Your task to perform on an android device: check google app version Image 0: 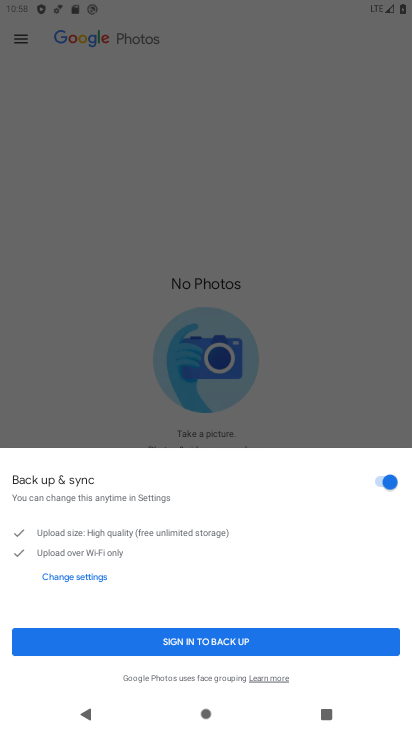
Step 0: drag from (244, 607) to (320, 119)
Your task to perform on an android device: check google app version Image 1: 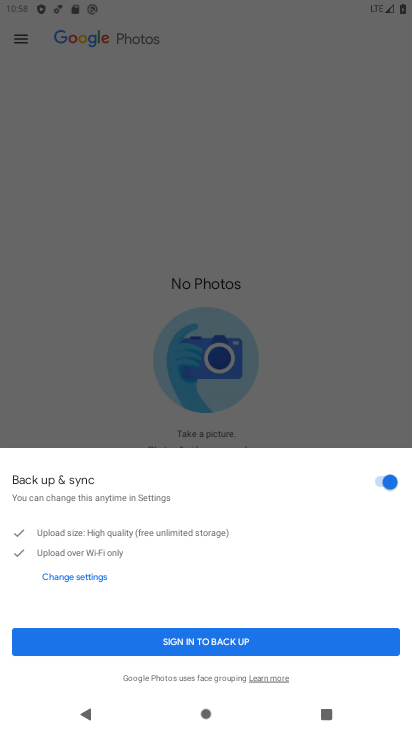
Step 1: drag from (187, 531) to (285, 266)
Your task to perform on an android device: check google app version Image 2: 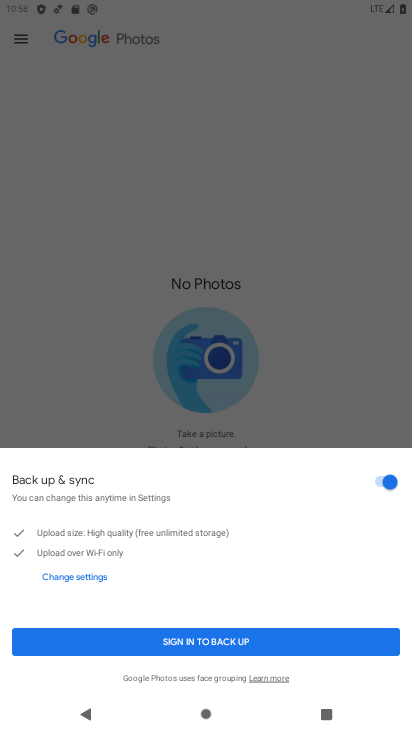
Step 2: press home button
Your task to perform on an android device: check google app version Image 3: 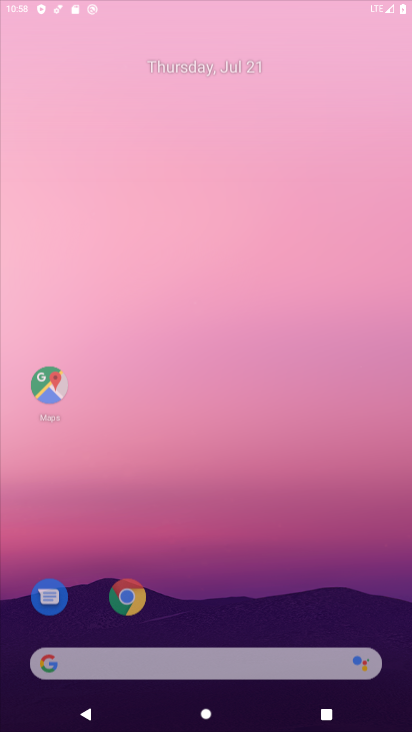
Step 3: drag from (247, 450) to (297, 223)
Your task to perform on an android device: check google app version Image 4: 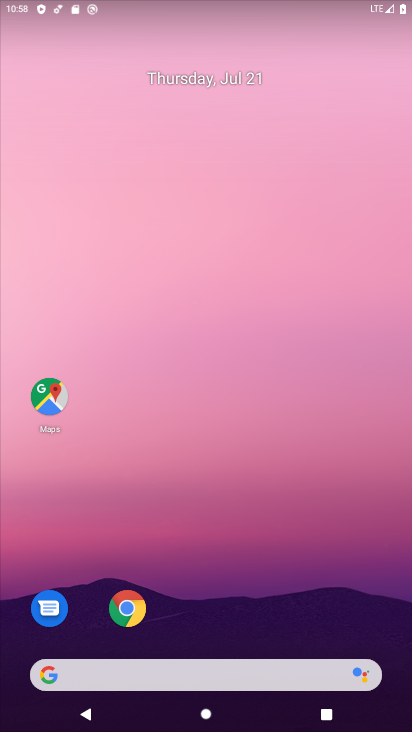
Step 4: drag from (240, 575) to (317, 5)
Your task to perform on an android device: check google app version Image 5: 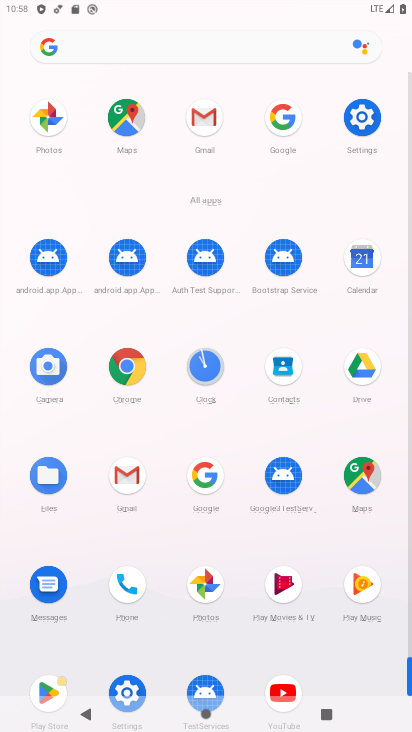
Step 5: click (209, 466)
Your task to perform on an android device: check google app version Image 6: 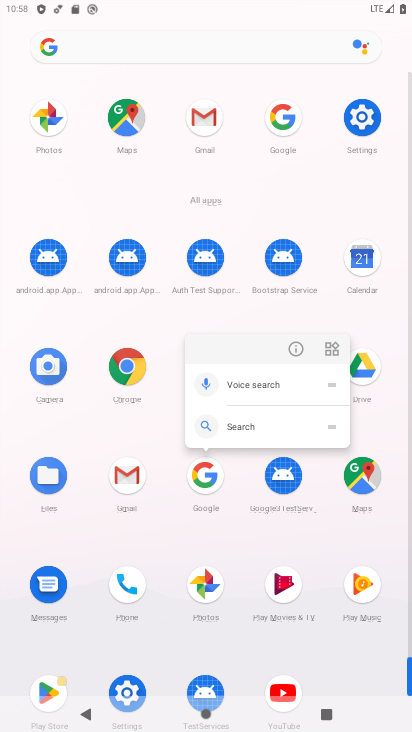
Step 6: click (292, 350)
Your task to perform on an android device: check google app version Image 7: 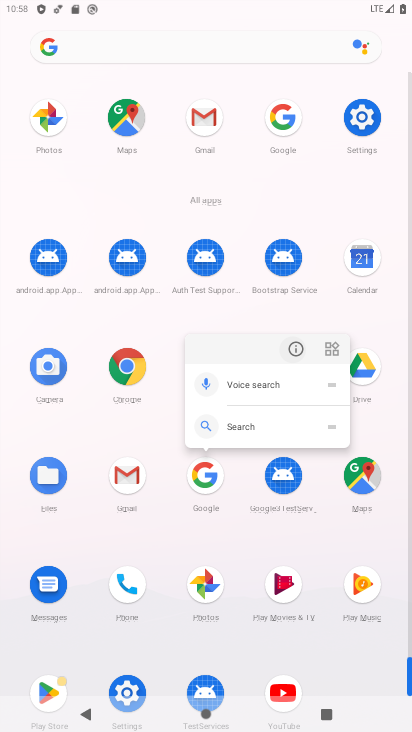
Step 7: click (292, 349)
Your task to perform on an android device: check google app version Image 8: 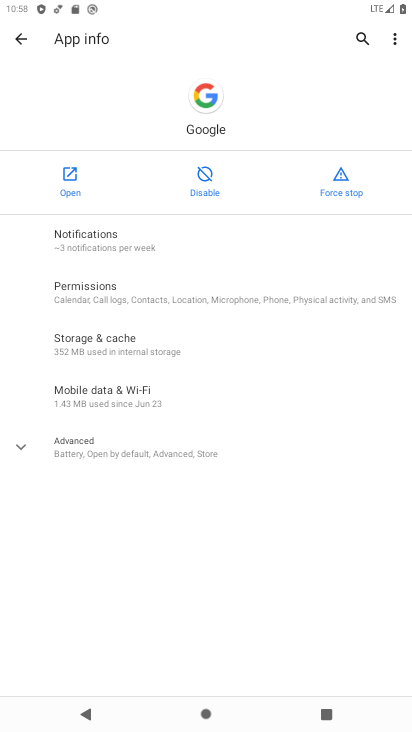
Step 8: click (74, 182)
Your task to perform on an android device: check google app version Image 9: 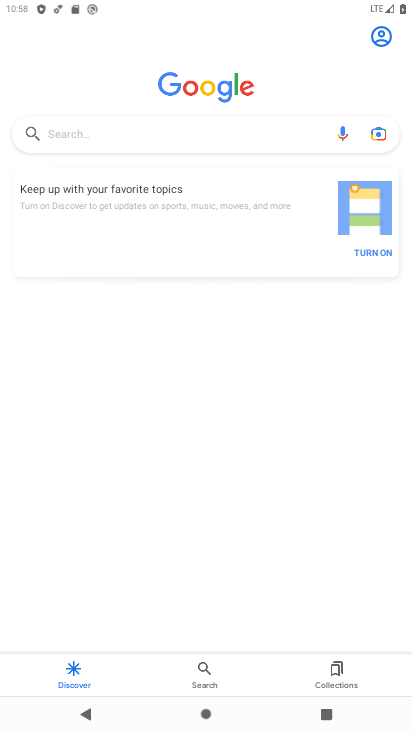
Step 9: drag from (182, 536) to (201, 228)
Your task to perform on an android device: check google app version Image 10: 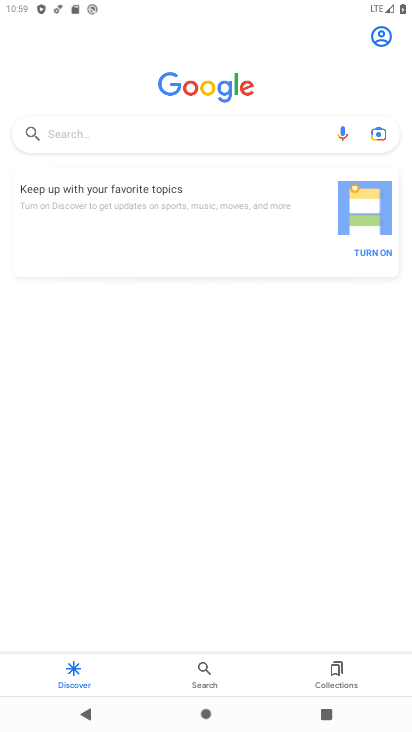
Step 10: drag from (378, 30) to (382, 131)
Your task to perform on an android device: check google app version Image 11: 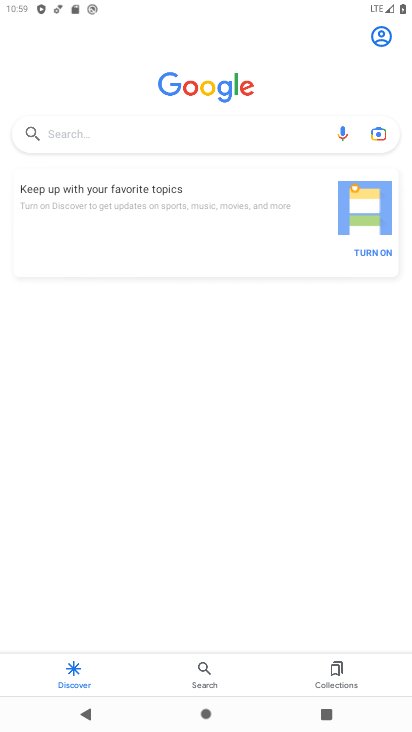
Step 11: click (394, 35)
Your task to perform on an android device: check google app version Image 12: 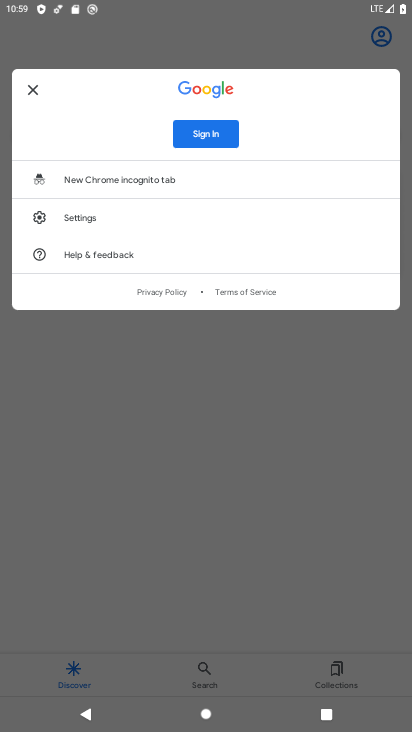
Step 12: click (96, 214)
Your task to perform on an android device: check google app version Image 13: 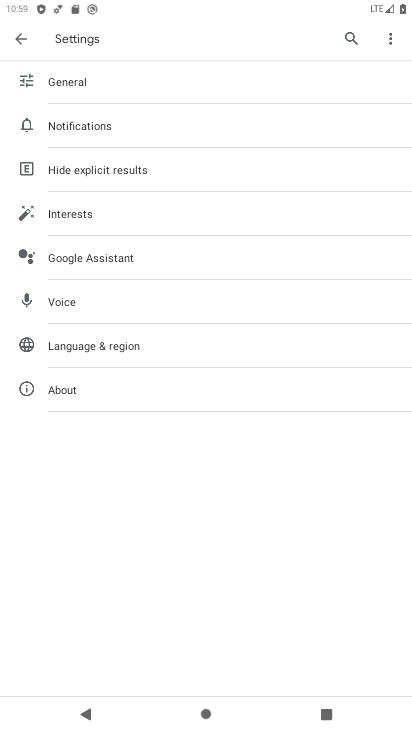
Step 13: click (70, 382)
Your task to perform on an android device: check google app version Image 14: 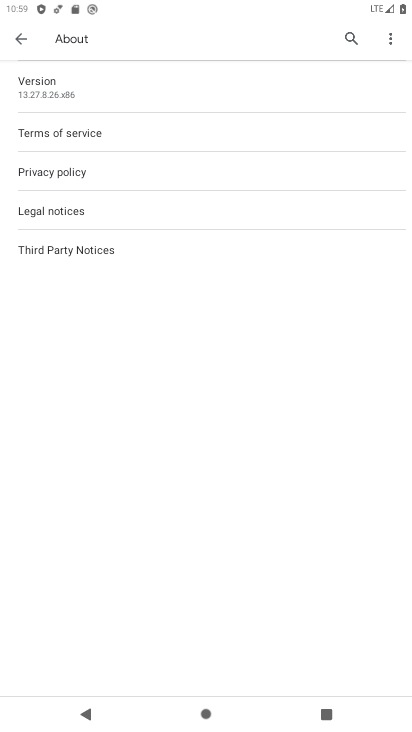
Step 14: click (107, 71)
Your task to perform on an android device: check google app version Image 15: 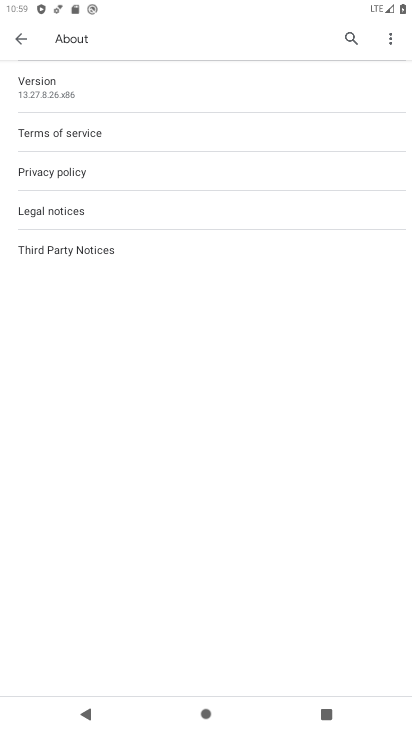
Step 15: task complete